Your task to perform on an android device: delete a single message in the gmail app Image 0: 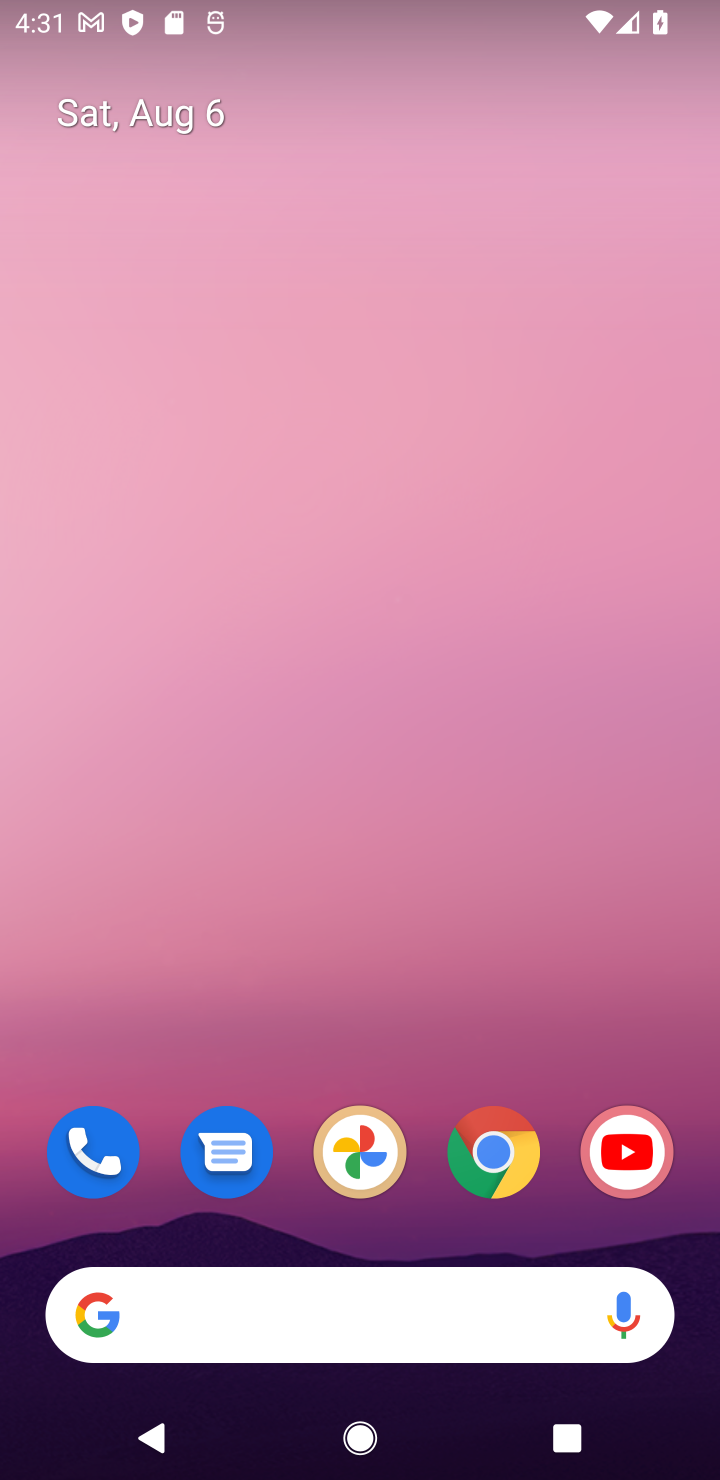
Step 0: drag from (562, 980) to (650, 61)
Your task to perform on an android device: delete a single message in the gmail app Image 1: 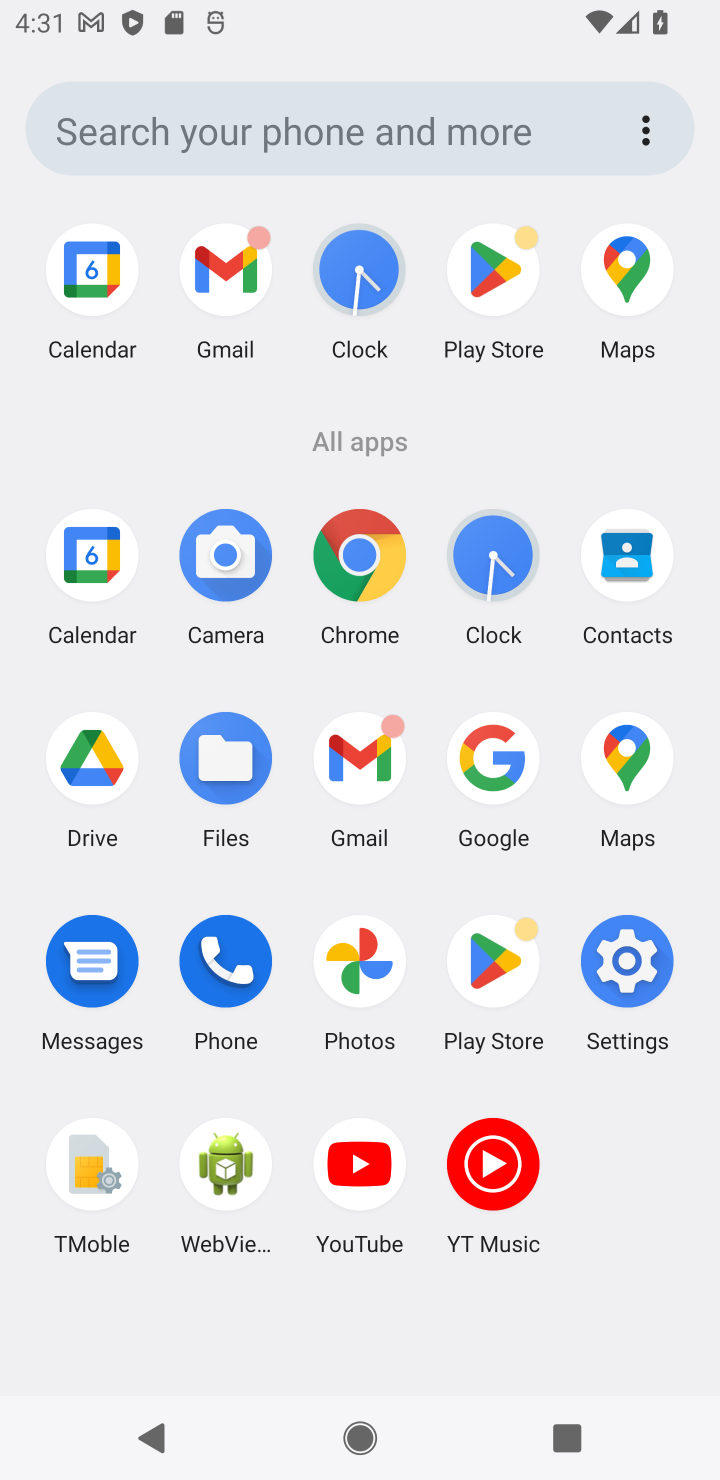
Step 1: click (367, 762)
Your task to perform on an android device: delete a single message in the gmail app Image 2: 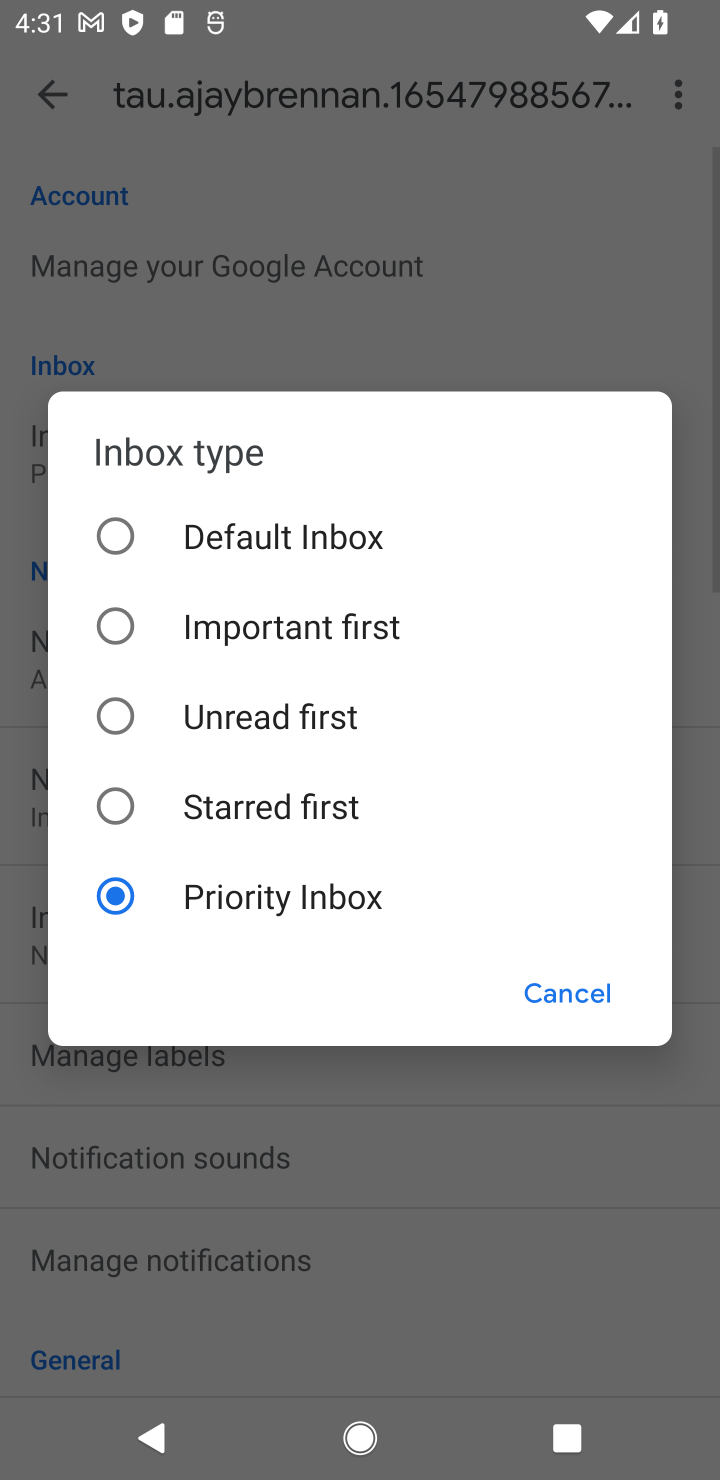
Step 2: click (550, 996)
Your task to perform on an android device: delete a single message in the gmail app Image 3: 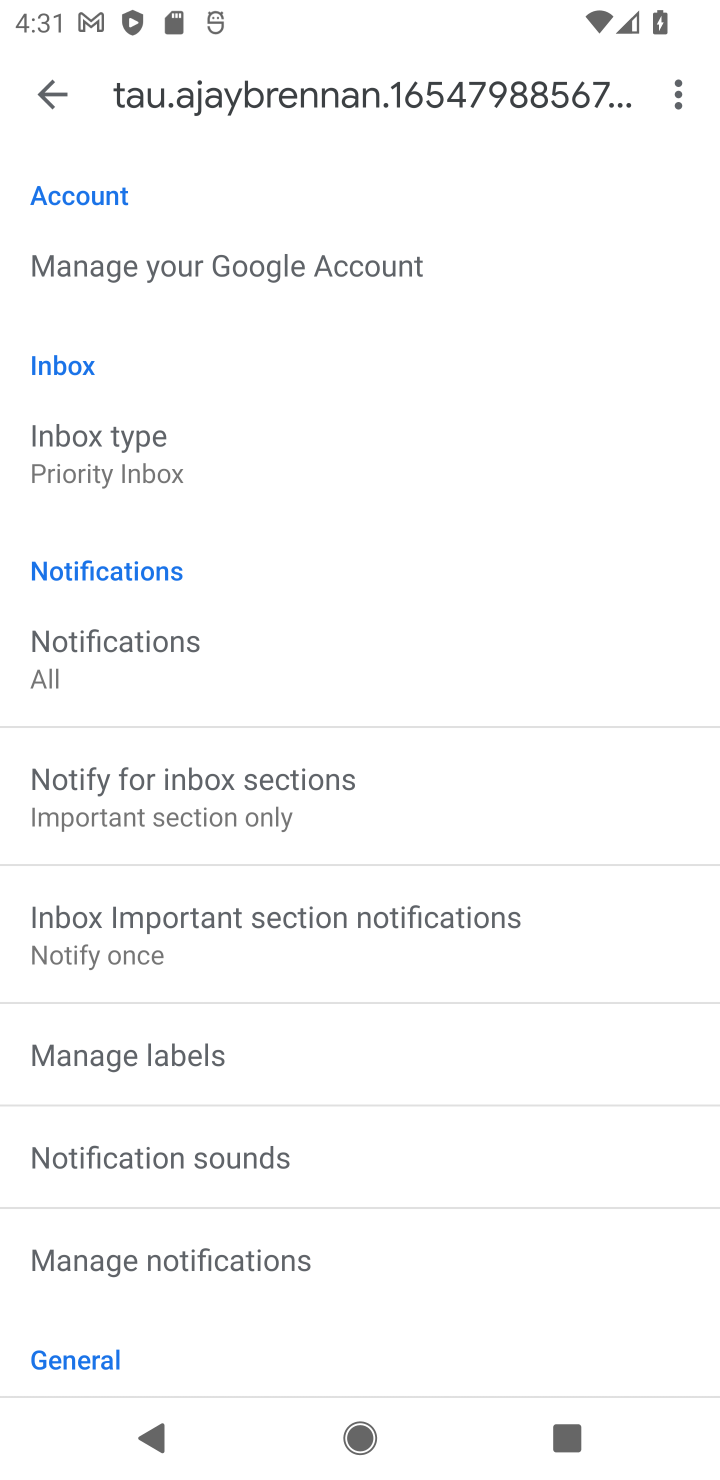
Step 3: click (60, 97)
Your task to perform on an android device: delete a single message in the gmail app Image 4: 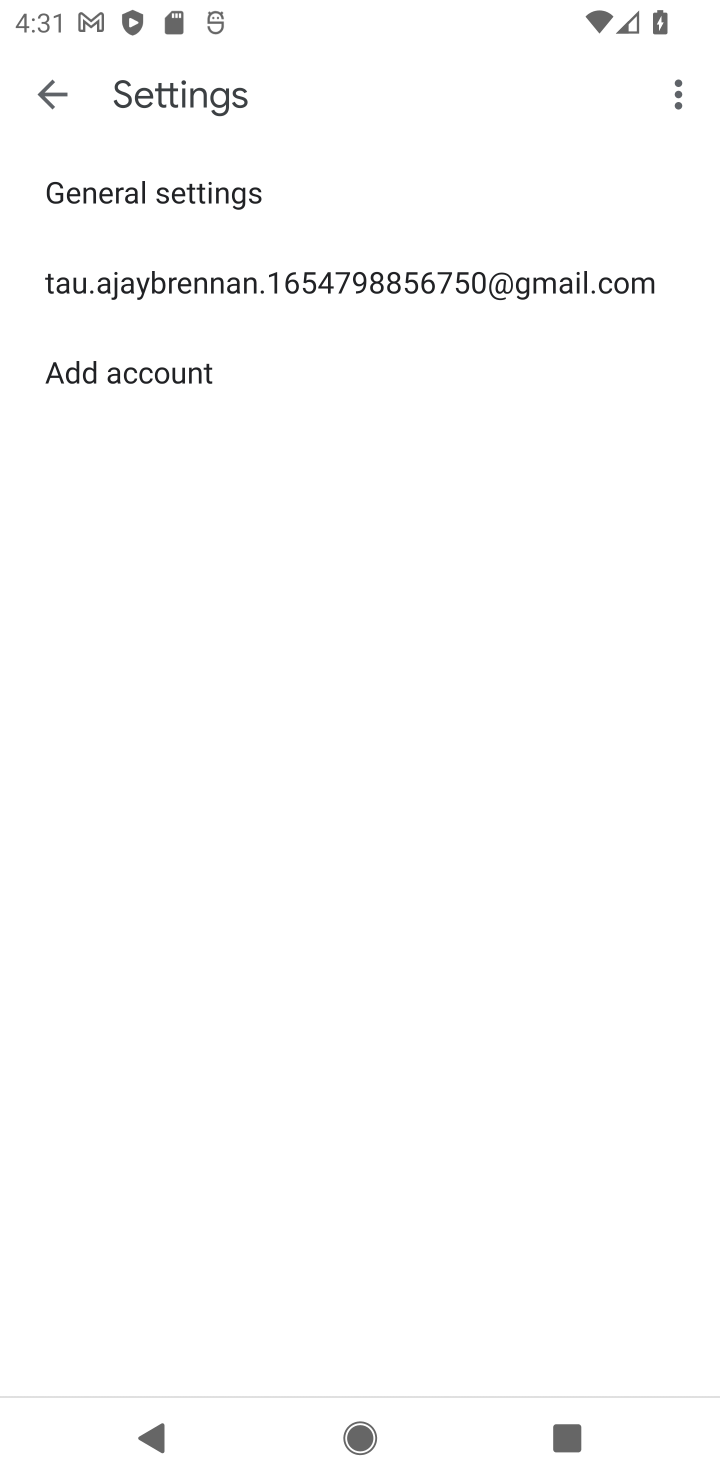
Step 4: click (72, 103)
Your task to perform on an android device: delete a single message in the gmail app Image 5: 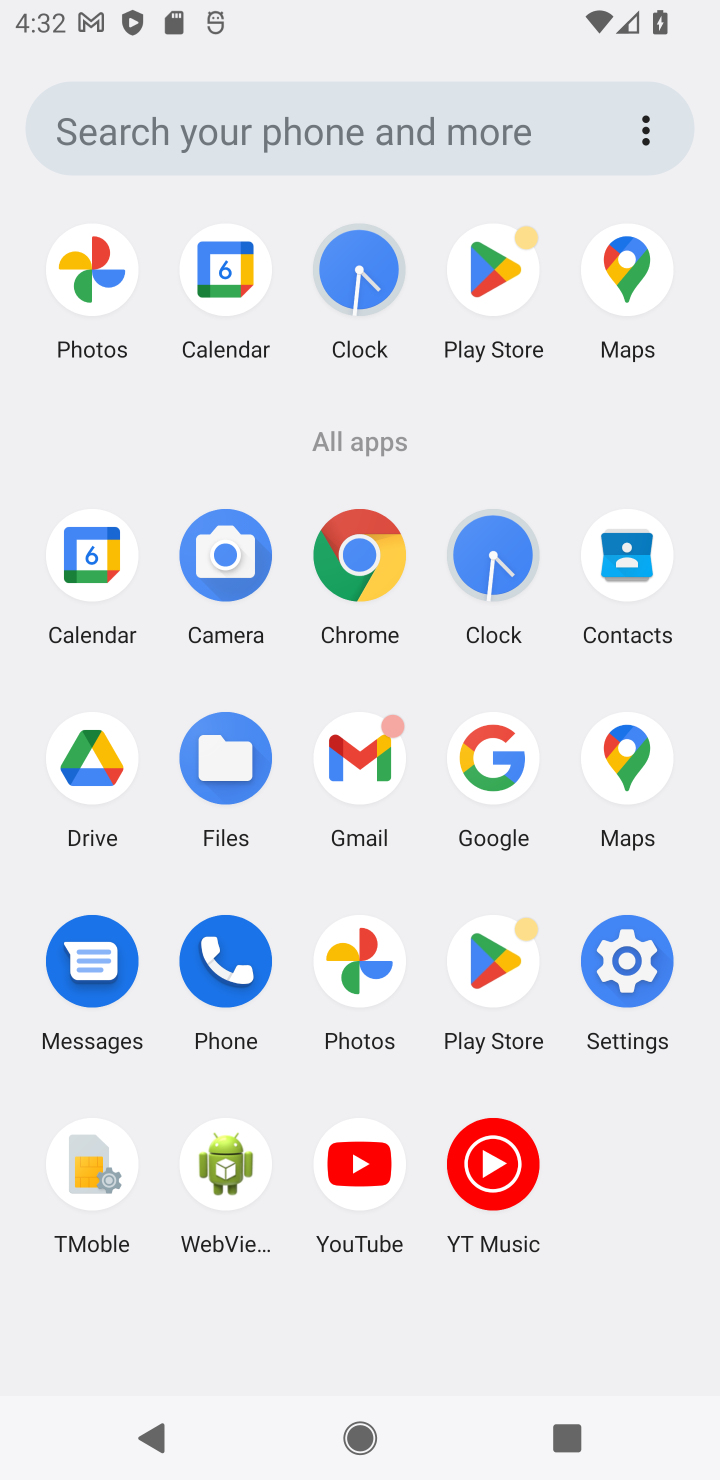
Step 5: click (391, 748)
Your task to perform on an android device: delete a single message in the gmail app Image 6: 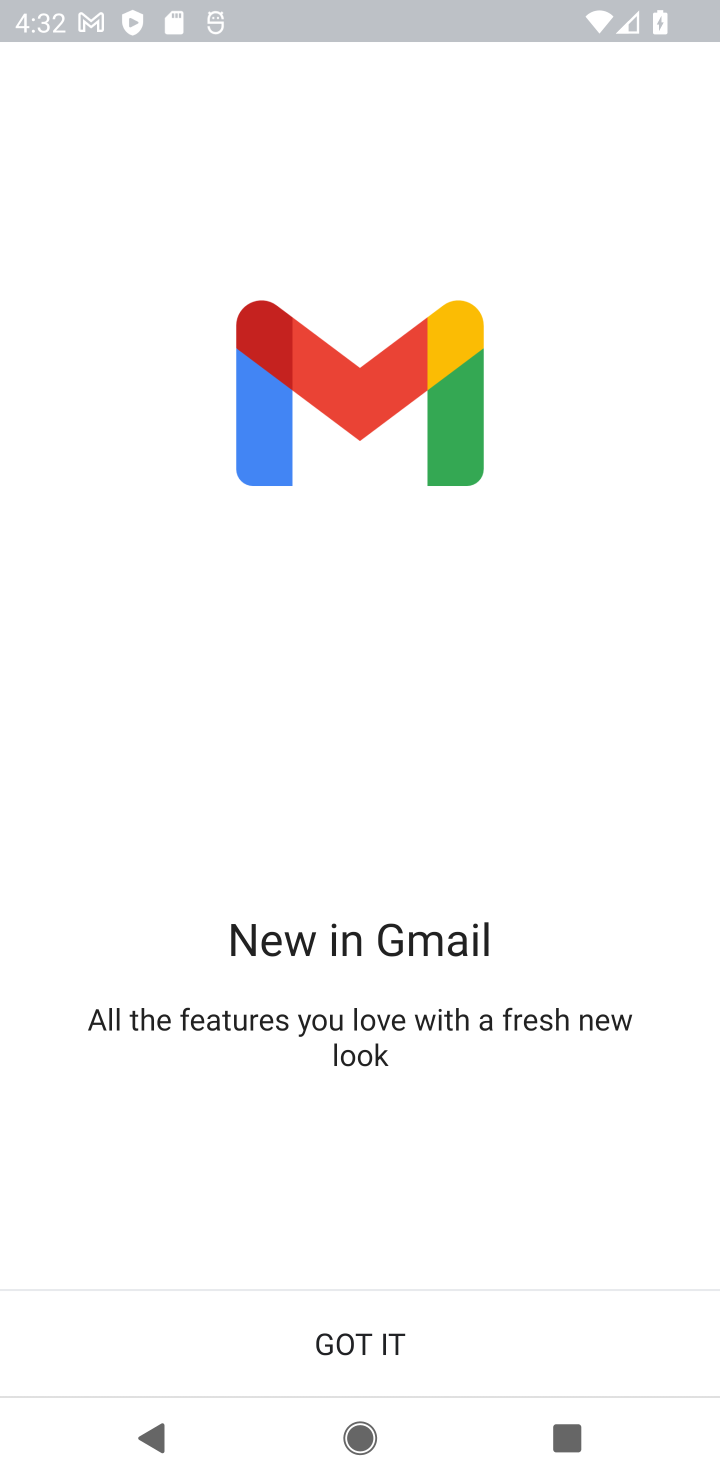
Step 6: click (396, 1344)
Your task to perform on an android device: delete a single message in the gmail app Image 7: 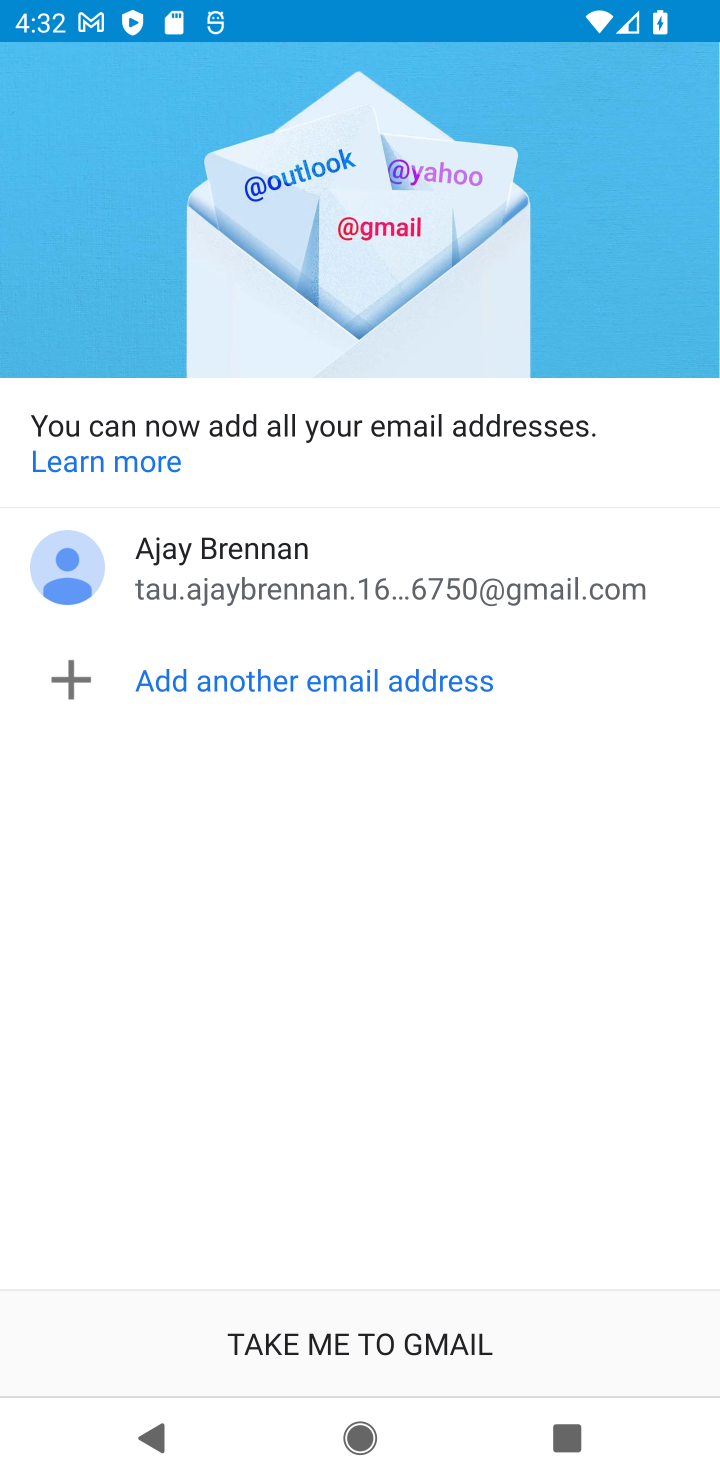
Step 7: click (404, 1353)
Your task to perform on an android device: delete a single message in the gmail app Image 8: 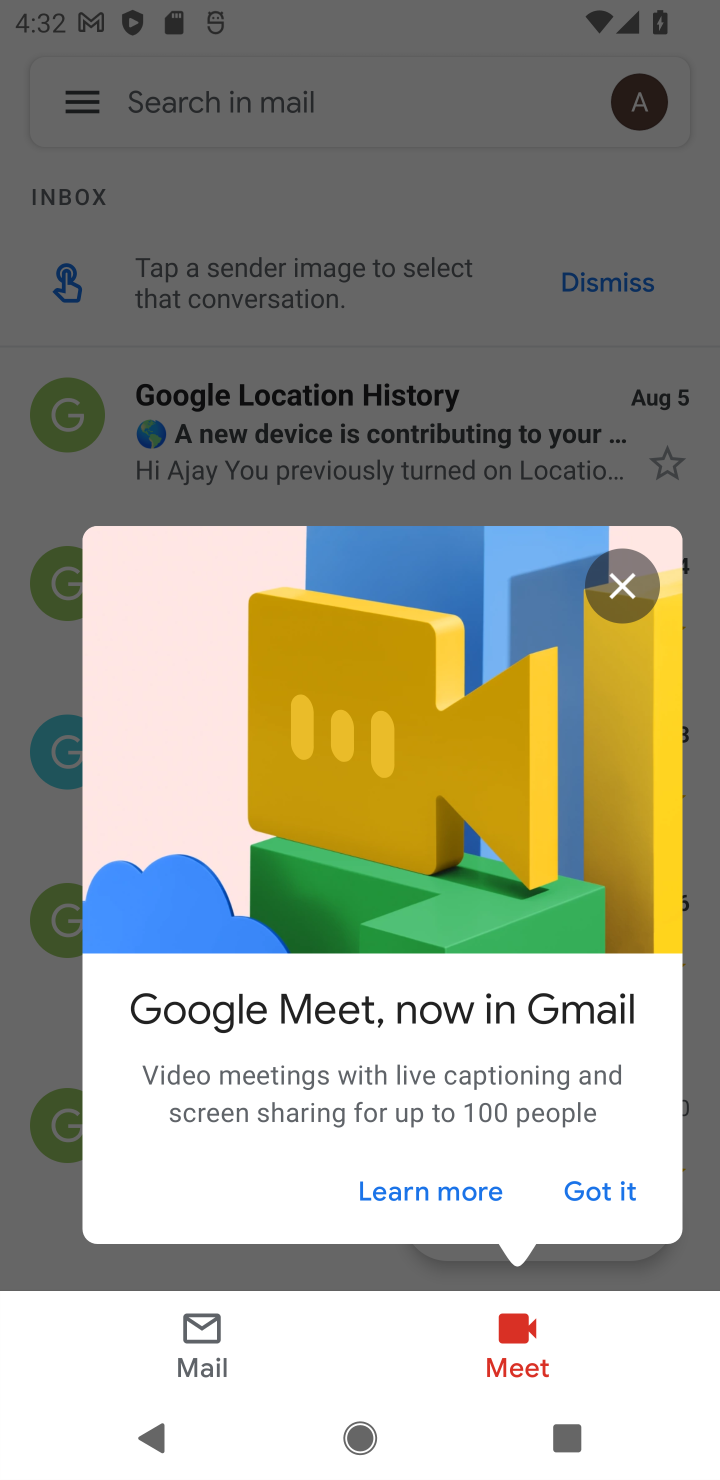
Step 8: click (161, 1349)
Your task to perform on an android device: delete a single message in the gmail app Image 9: 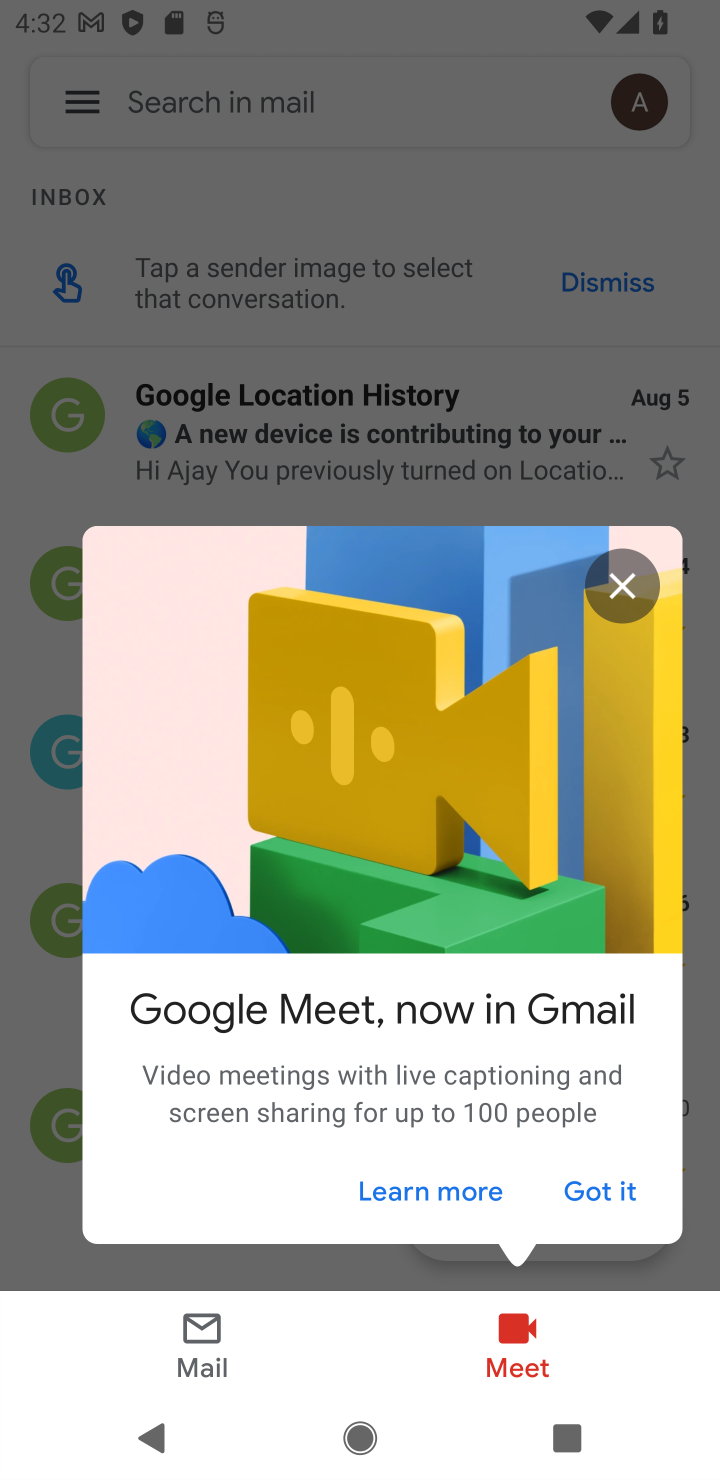
Step 9: click (199, 1344)
Your task to perform on an android device: delete a single message in the gmail app Image 10: 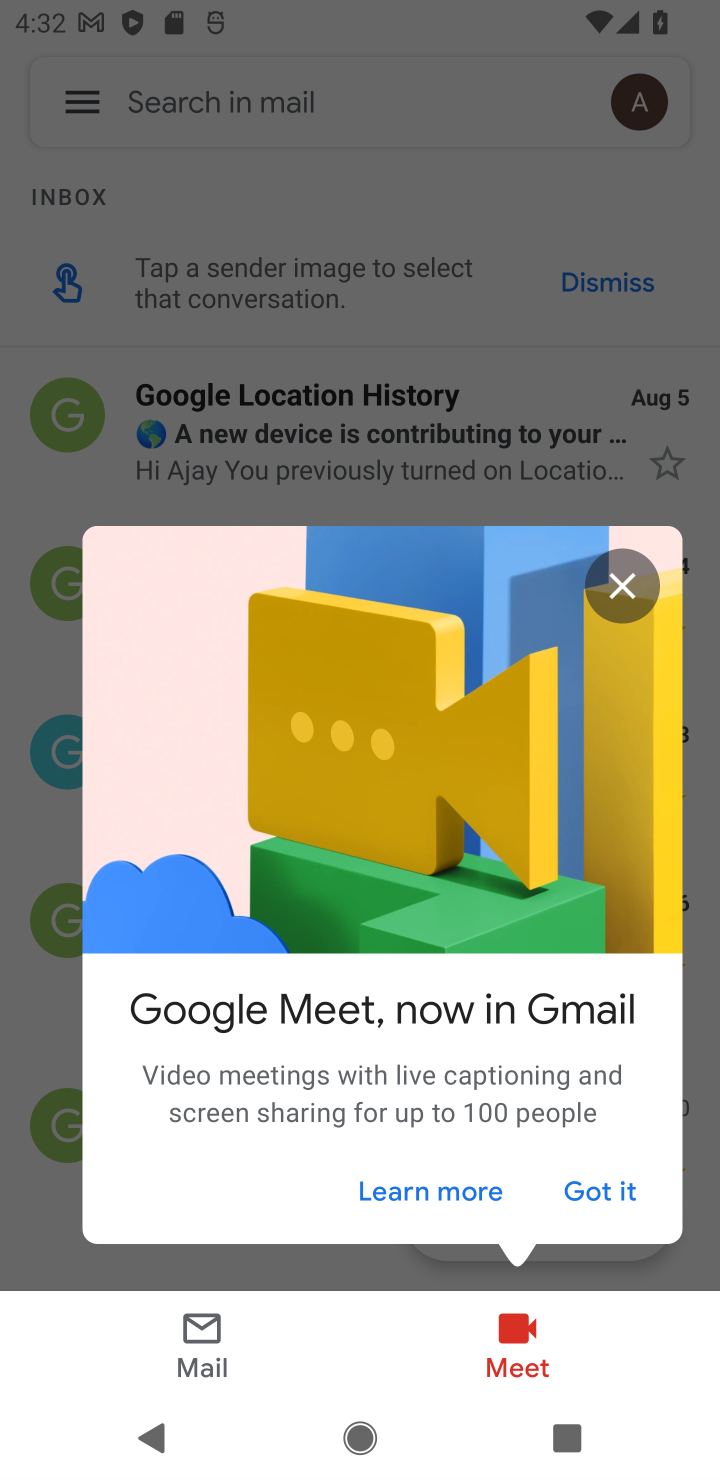
Step 10: click (608, 1193)
Your task to perform on an android device: delete a single message in the gmail app Image 11: 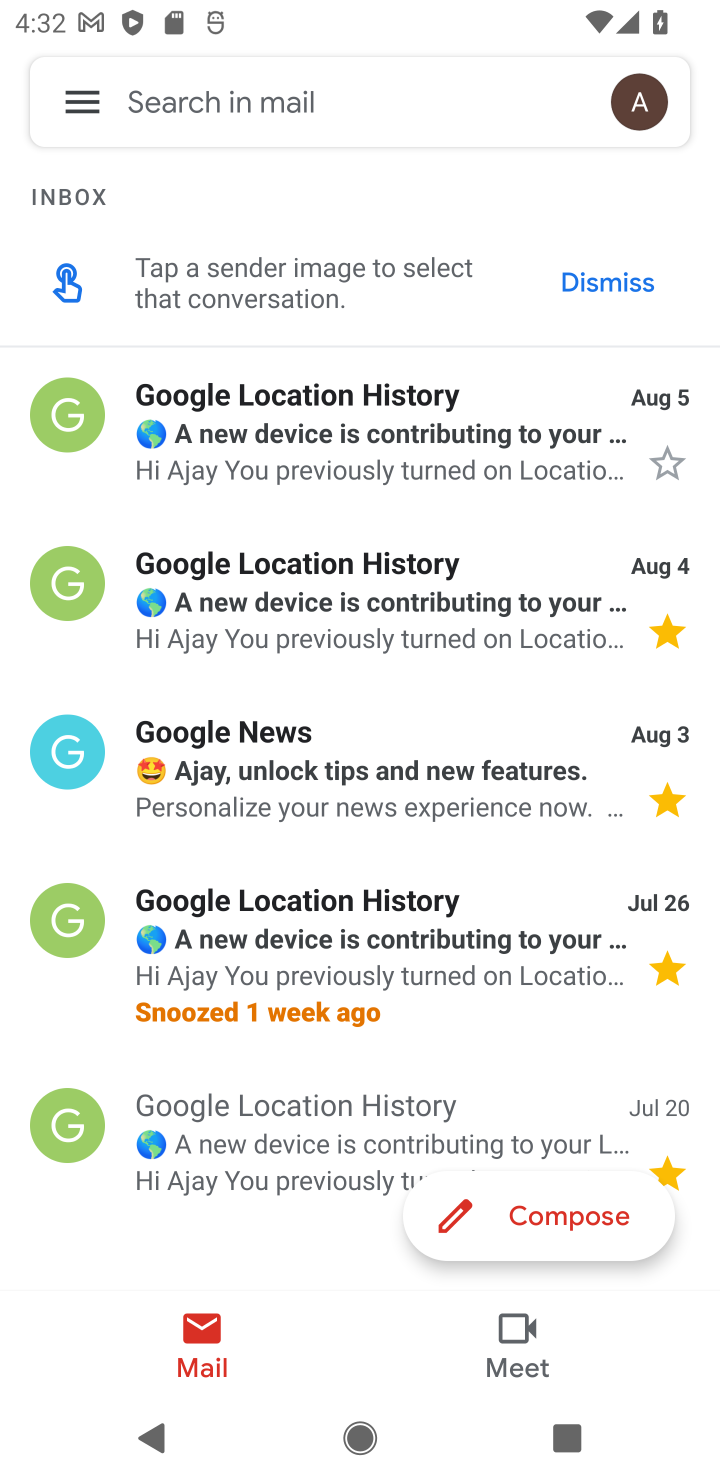
Step 11: click (84, 114)
Your task to perform on an android device: delete a single message in the gmail app Image 12: 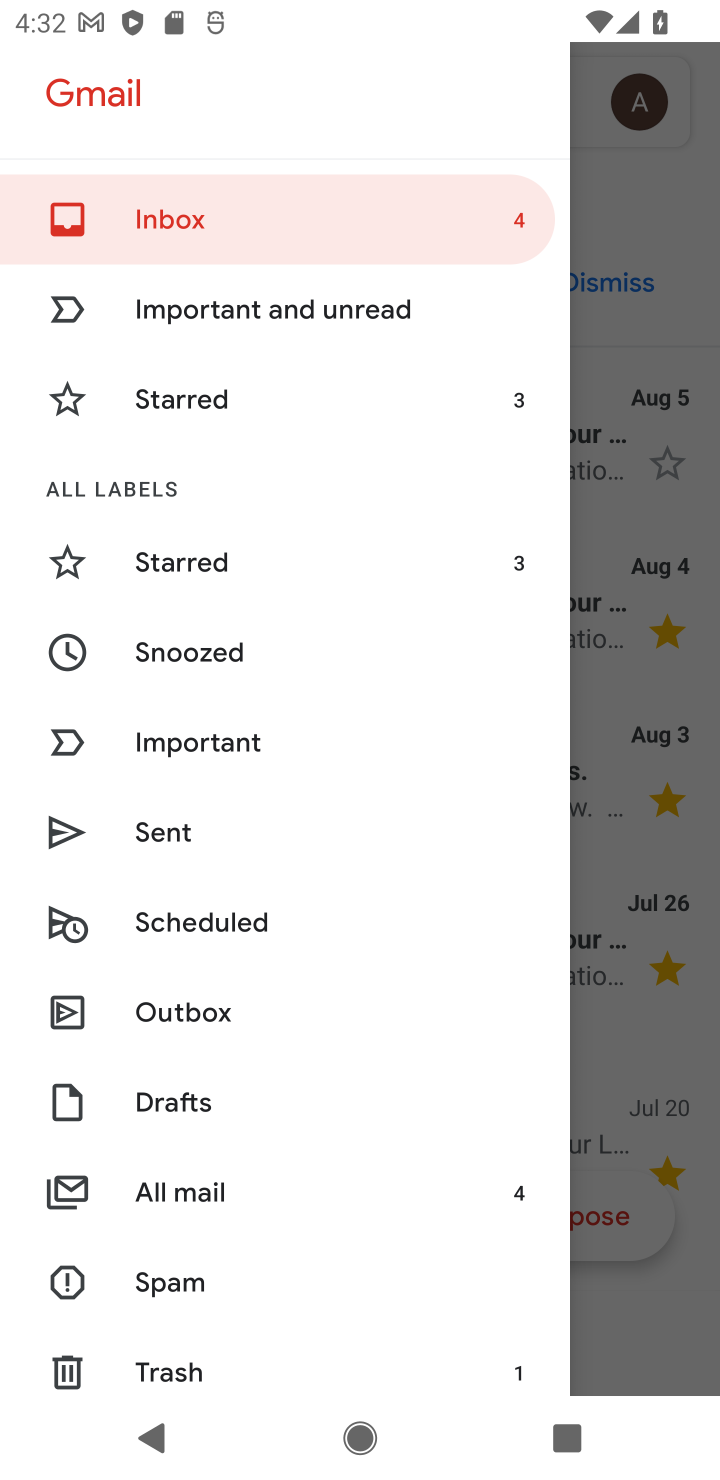
Step 12: click (241, 1172)
Your task to perform on an android device: delete a single message in the gmail app Image 13: 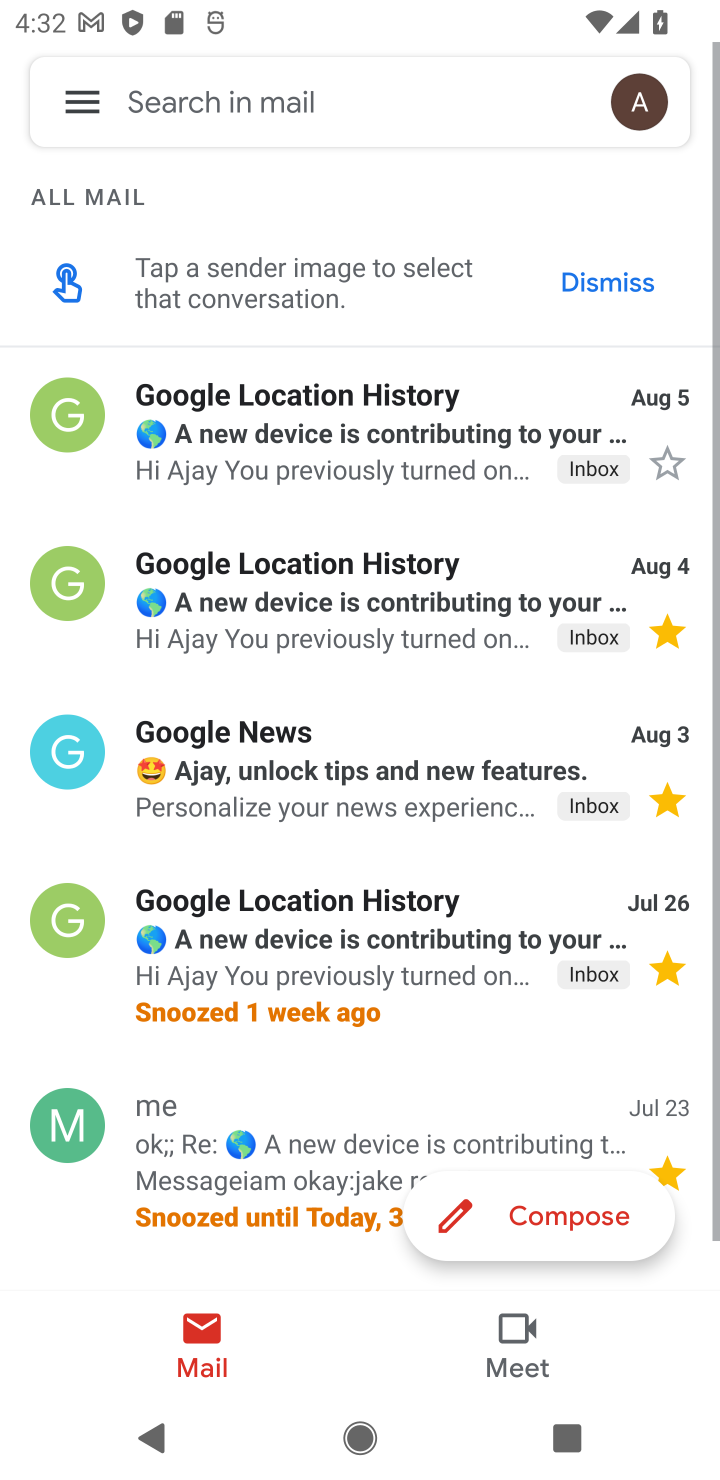
Step 13: click (409, 481)
Your task to perform on an android device: delete a single message in the gmail app Image 14: 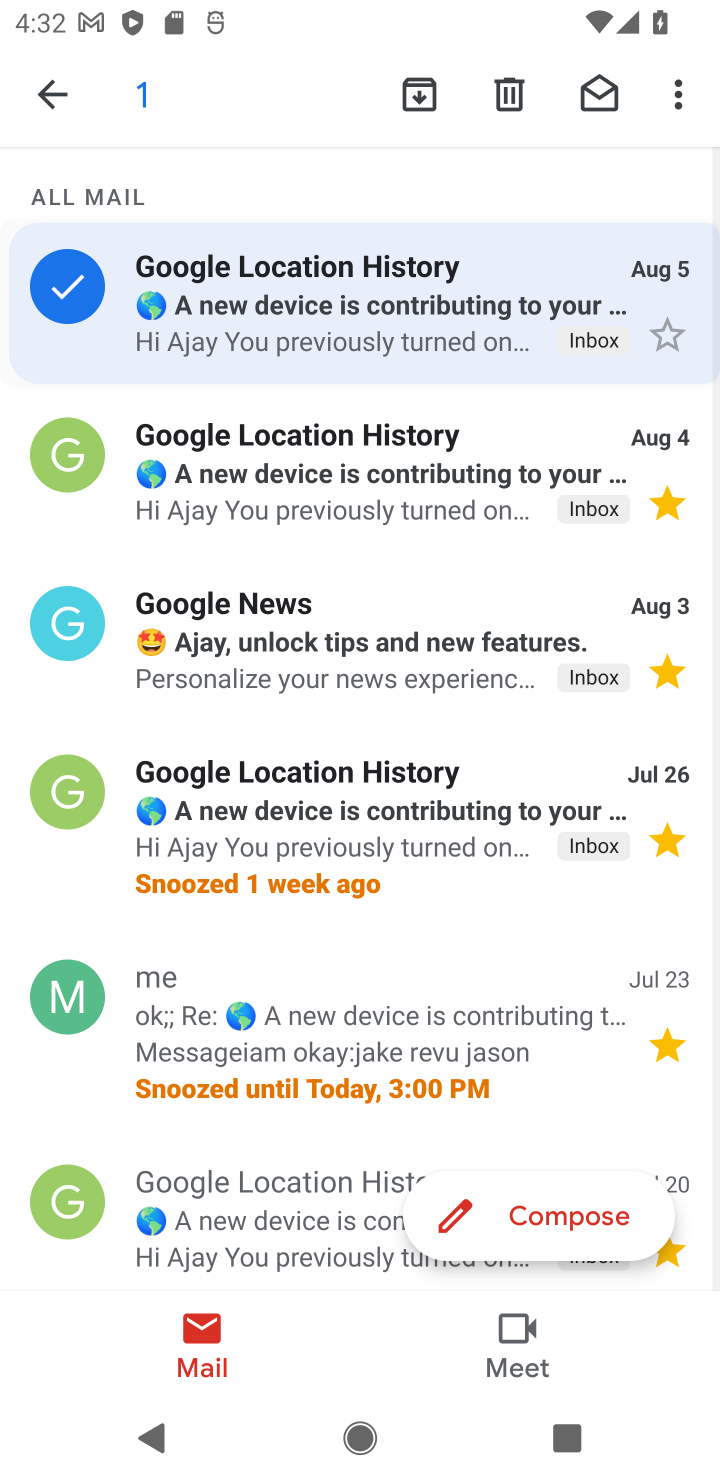
Step 14: click (523, 83)
Your task to perform on an android device: delete a single message in the gmail app Image 15: 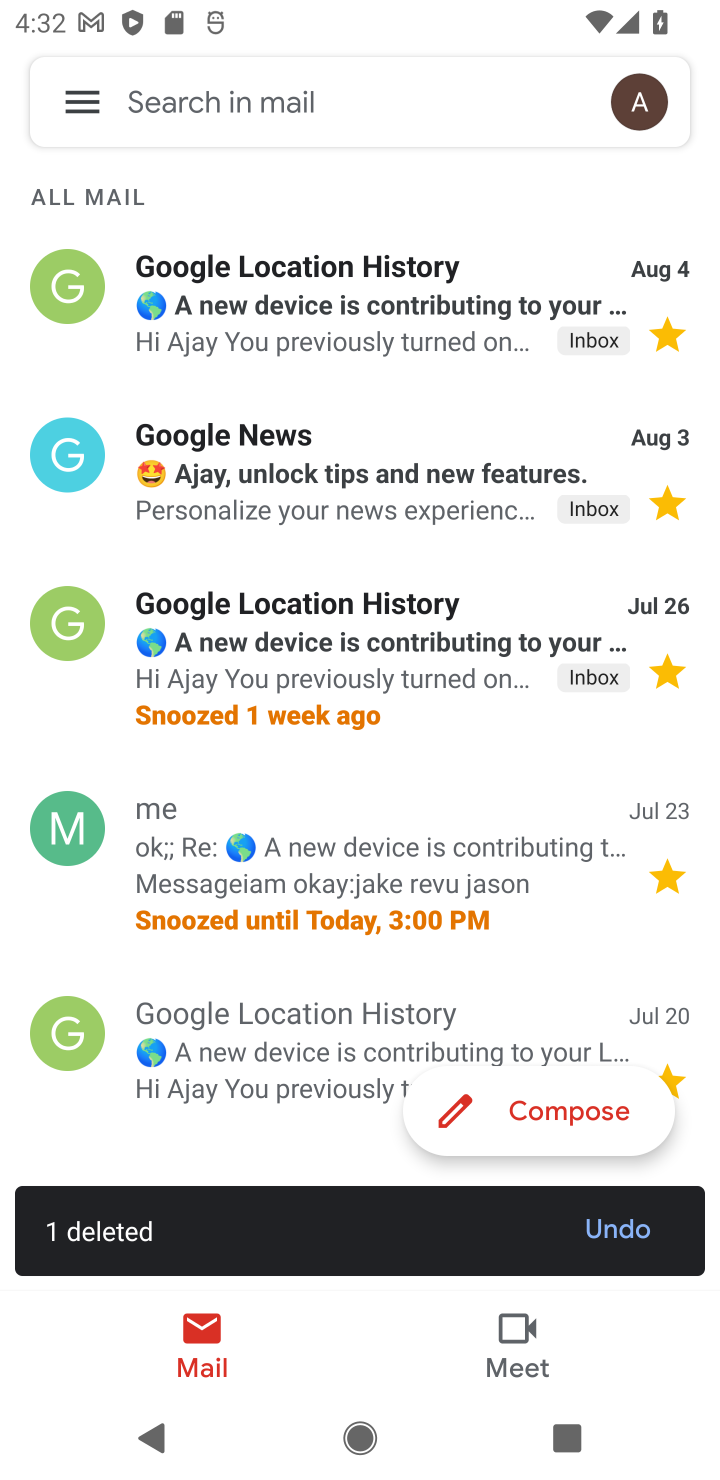
Step 15: task complete